Your task to perform on an android device: clear all cookies in the chrome app Image 0: 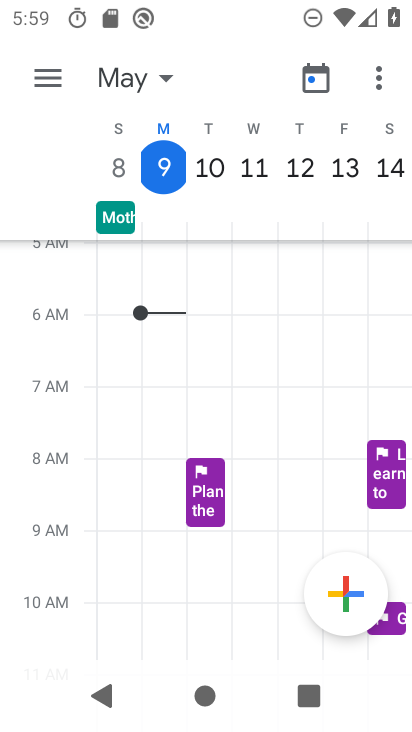
Step 0: press home button
Your task to perform on an android device: clear all cookies in the chrome app Image 1: 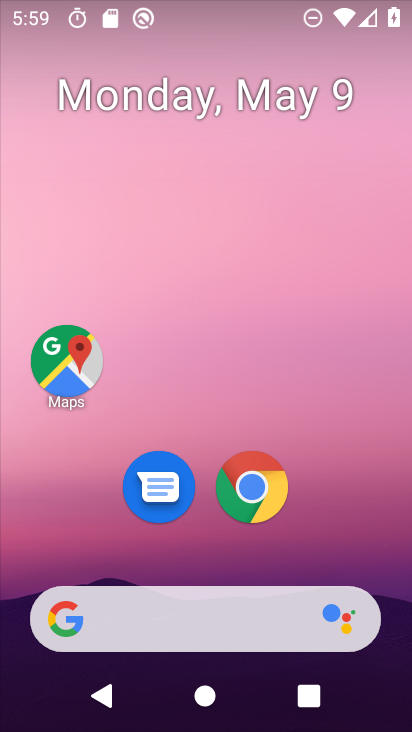
Step 1: click (272, 504)
Your task to perform on an android device: clear all cookies in the chrome app Image 2: 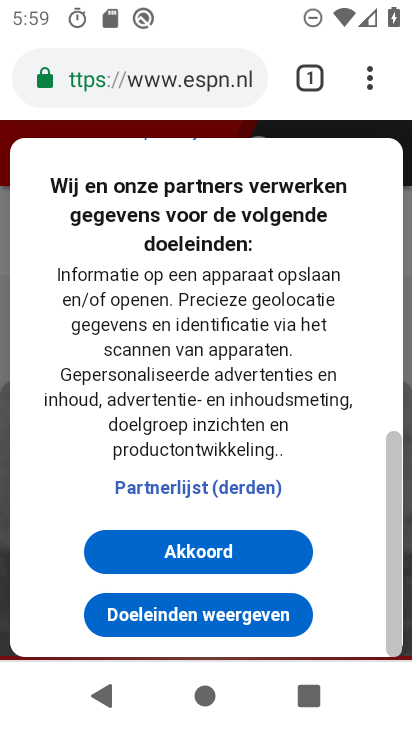
Step 2: click (372, 73)
Your task to perform on an android device: clear all cookies in the chrome app Image 3: 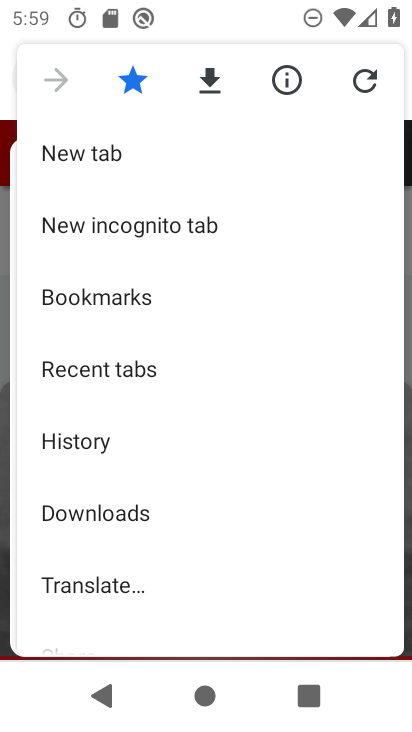
Step 3: click (69, 445)
Your task to perform on an android device: clear all cookies in the chrome app Image 4: 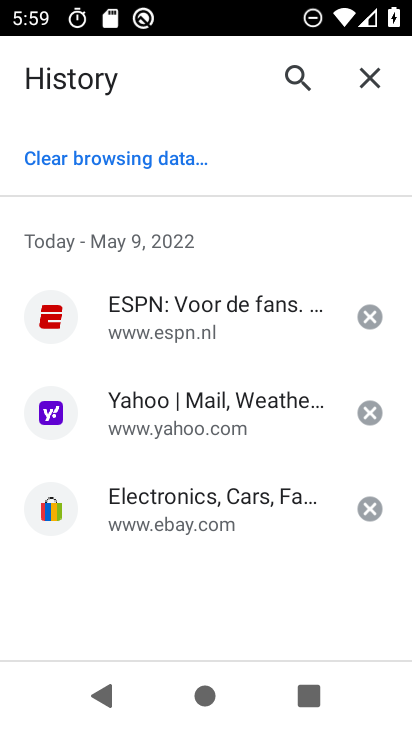
Step 4: click (114, 166)
Your task to perform on an android device: clear all cookies in the chrome app Image 5: 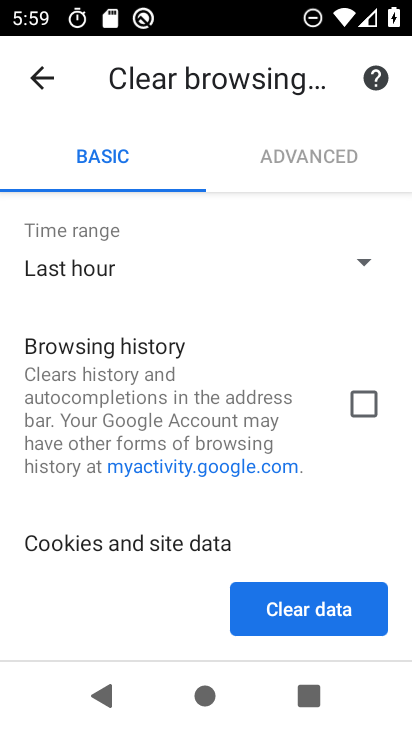
Step 5: drag from (240, 511) to (247, 178)
Your task to perform on an android device: clear all cookies in the chrome app Image 6: 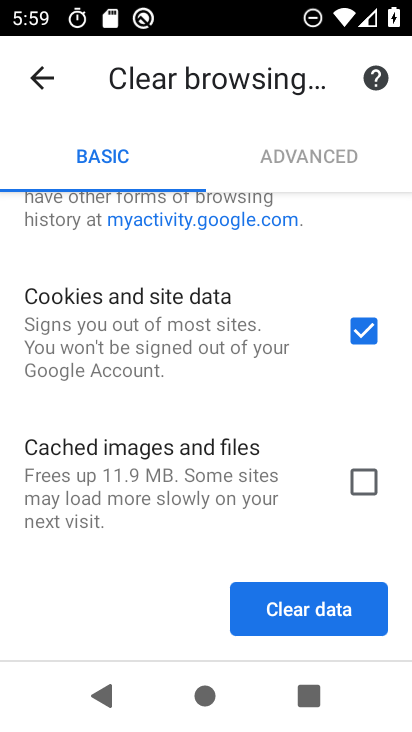
Step 6: click (278, 612)
Your task to perform on an android device: clear all cookies in the chrome app Image 7: 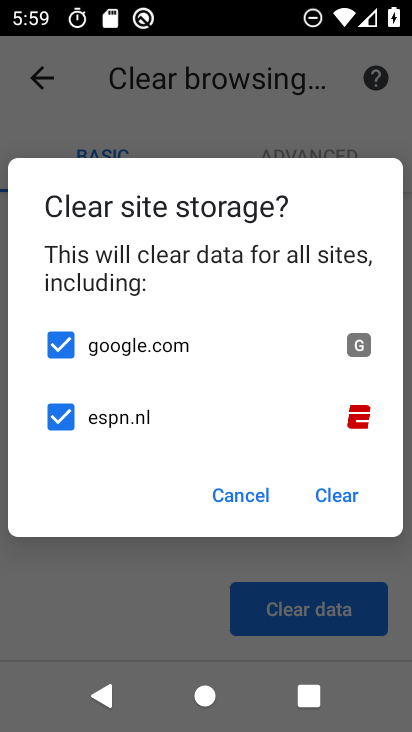
Step 7: click (338, 496)
Your task to perform on an android device: clear all cookies in the chrome app Image 8: 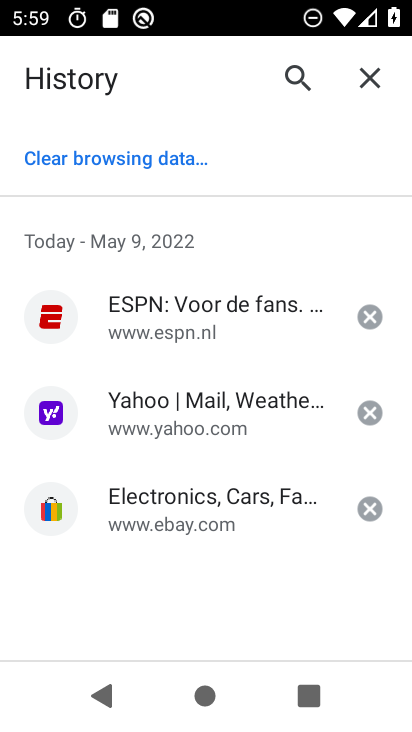
Step 8: task complete